Your task to perform on an android device: toggle priority inbox in the gmail app Image 0: 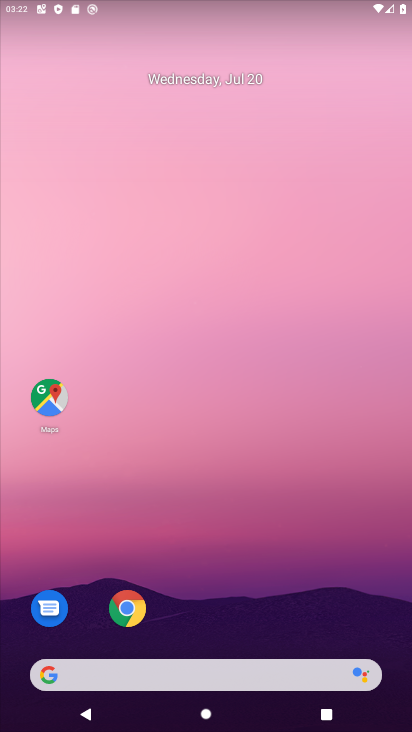
Step 0: drag from (387, 713) to (358, 68)
Your task to perform on an android device: toggle priority inbox in the gmail app Image 1: 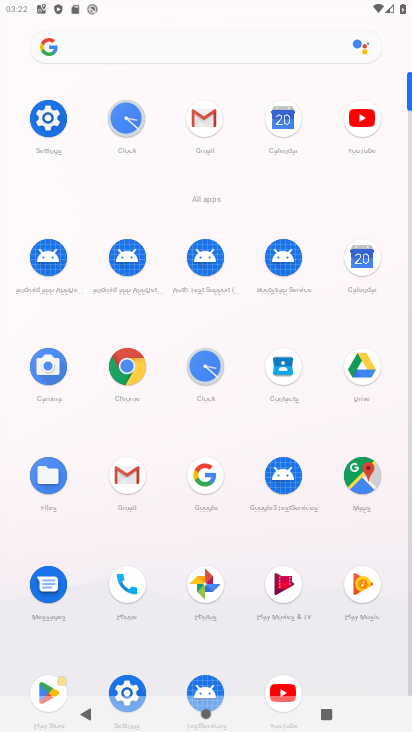
Step 1: click (111, 476)
Your task to perform on an android device: toggle priority inbox in the gmail app Image 2: 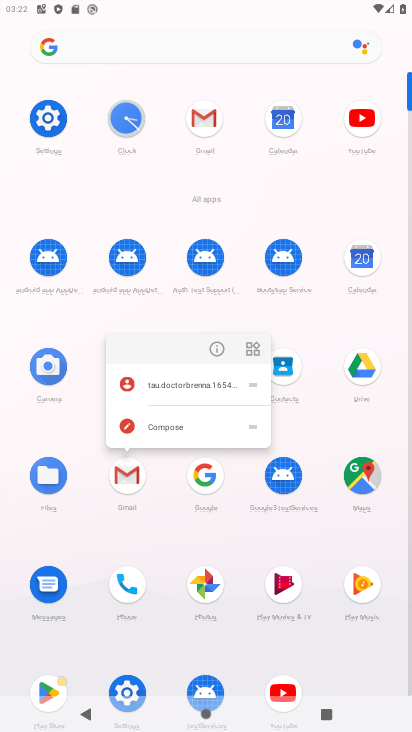
Step 2: click (114, 481)
Your task to perform on an android device: toggle priority inbox in the gmail app Image 3: 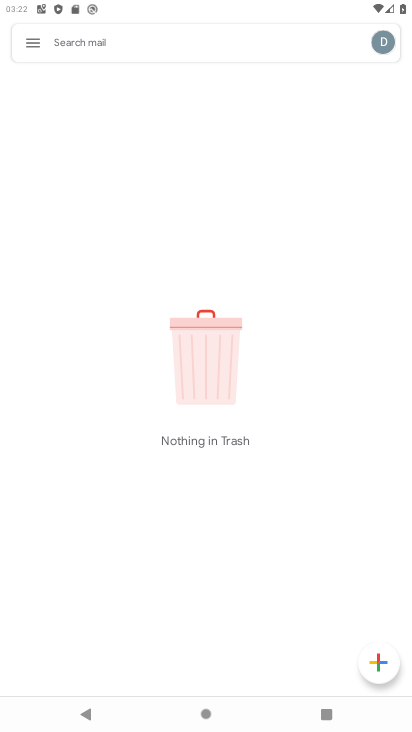
Step 3: click (29, 41)
Your task to perform on an android device: toggle priority inbox in the gmail app Image 4: 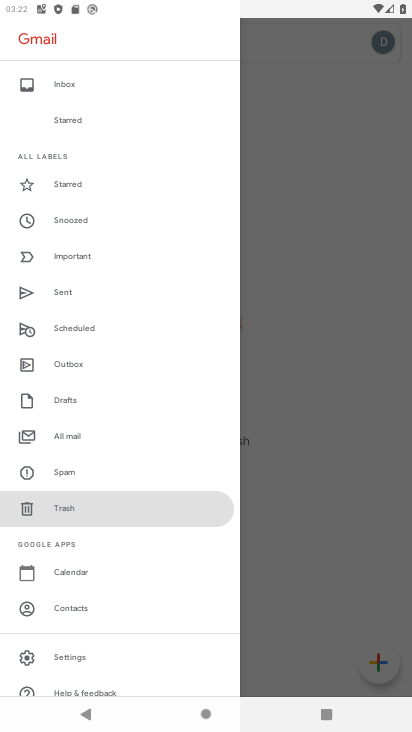
Step 4: click (54, 657)
Your task to perform on an android device: toggle priority inbox in the gmail app Image 5: 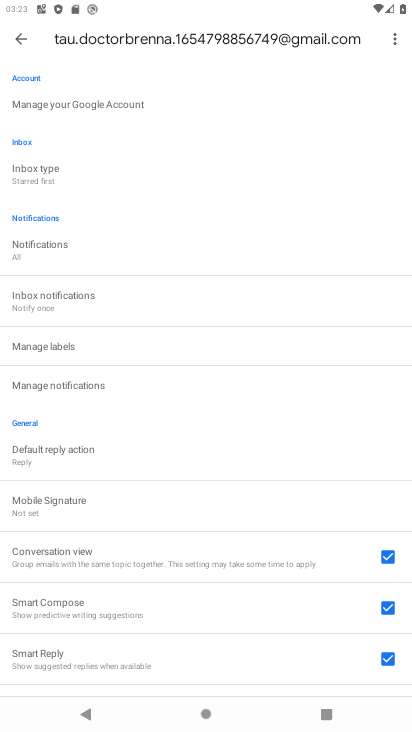
Step 5: click (44, 172)
Your task to perform on an android device: toggle priority inbox in the gmail app Image 6: 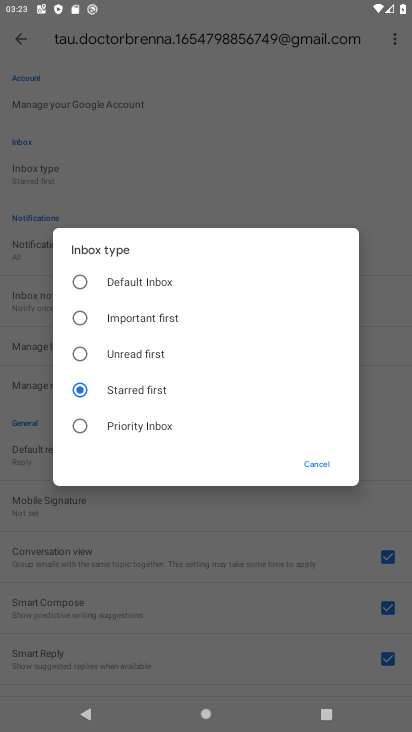
Step 6: click (100, 426)
Your task to perform on an android device: toggle priority inbox in the gmail app Image 7: 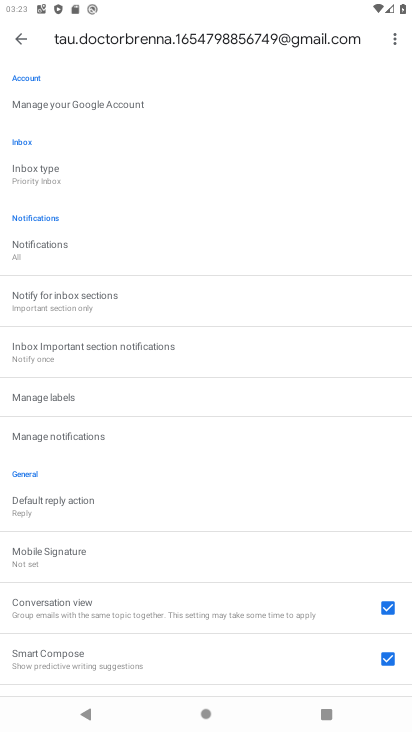
Step 7: task complete